Your task to perform on an android device: Open Google Chrome and click the shortcut for Amazon.com Image 0: 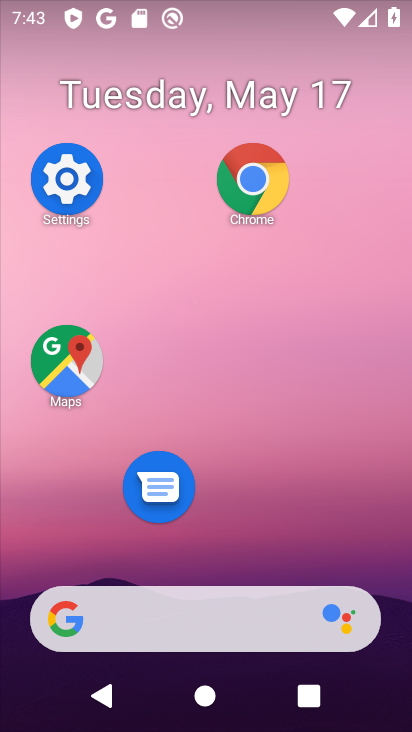
Step 0: drag from (254, 552) to (330, 155)
Your task to perform on an android device: Open Google Chrome and click the shortcut for Amazon.com Image 1: 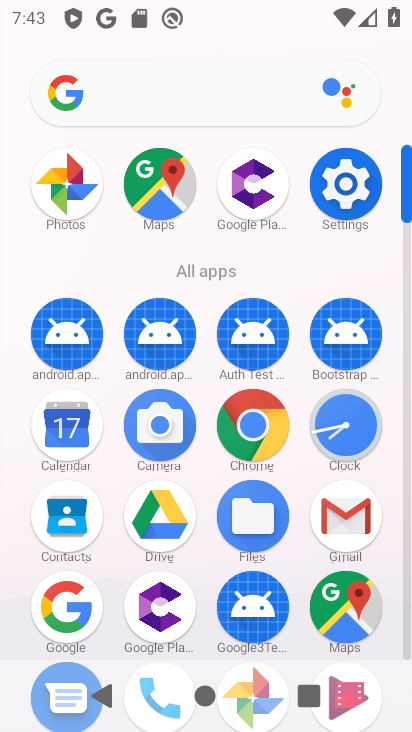
Step 1: click (260, 418)
Your task to perform on an android device: Open Google Chrome and click the shortcut for Amazon.com Image 2: 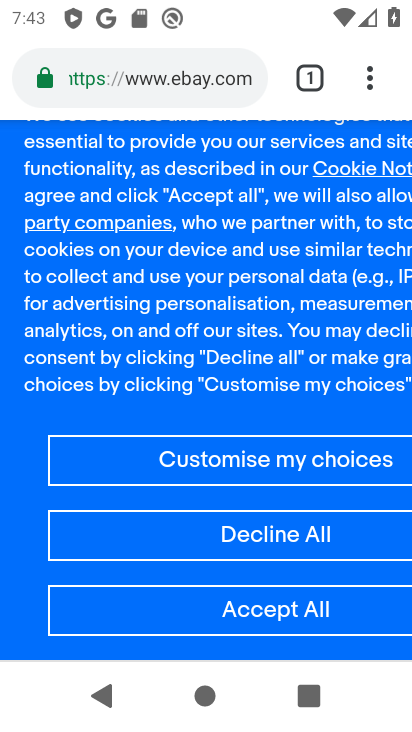
Step 2: click (308, 76)
Your task to perform on an android device: Open Google Chrome and click the shortcut for Amazon.com Image 3: 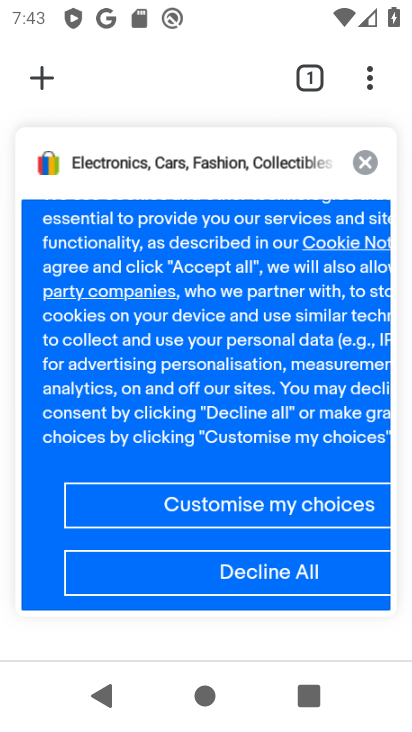
Step 3: click (47, 82)
Your task to perform on an android device: Open Google Chrome and click the shortcut for Amazon.com Image 4: 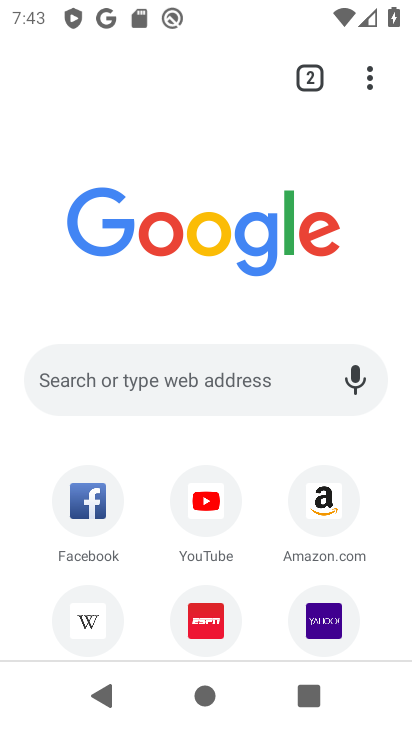
Step 4: click (313, 498)
Your task to perform on an android device: Open Google Chrome and click the shortcut for Amazon.com Image 5: 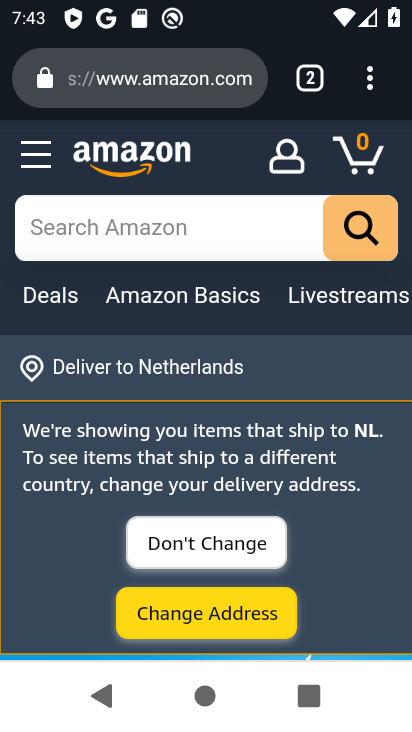
Step 5: click (378, 65)
Your task to perform on an android device: Open Google Chrome and click the shortcut for Amazon.com Image 6: 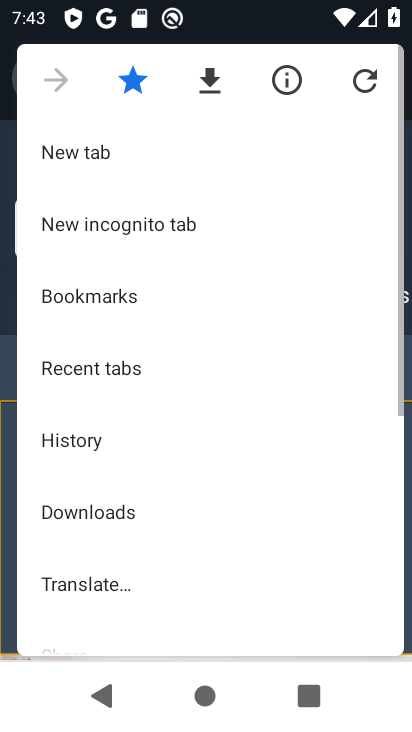
Step 6: drag from (245, 531) to (294, 131)
Your task to perform on an android device: Open Google Chrome and click the shortcut for Amazon.com Image 7: 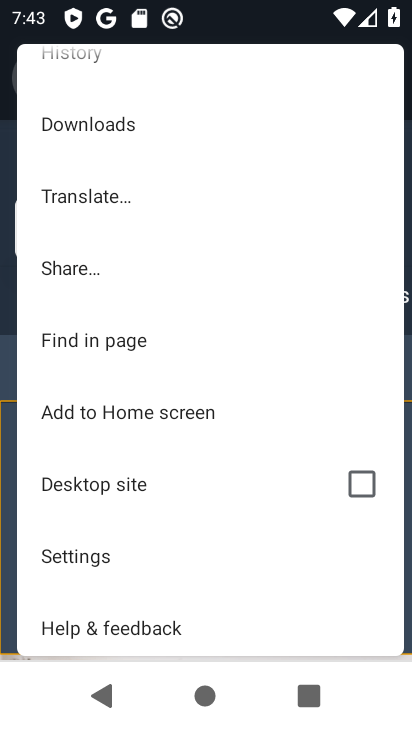
Step 7: click (215, 416)
Your task to perform on an android device: Open Google Chrome and click the shortcut for Amazon.com Image 8: 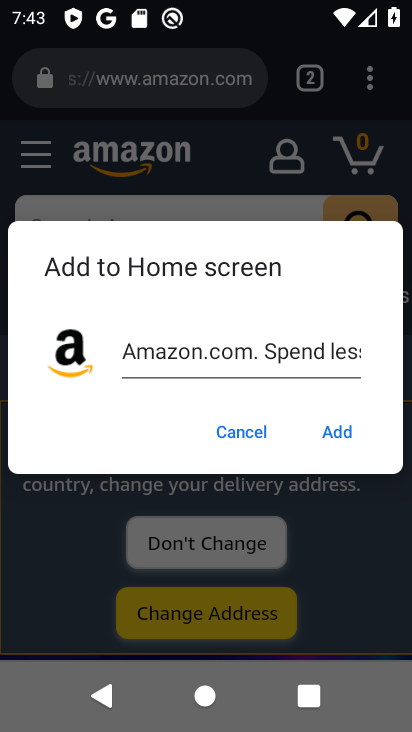
Step 8: click (342, 426)
Your task to perform on an android device: Open Google Chrome and click the shortcut for Amazon.com Image 9: 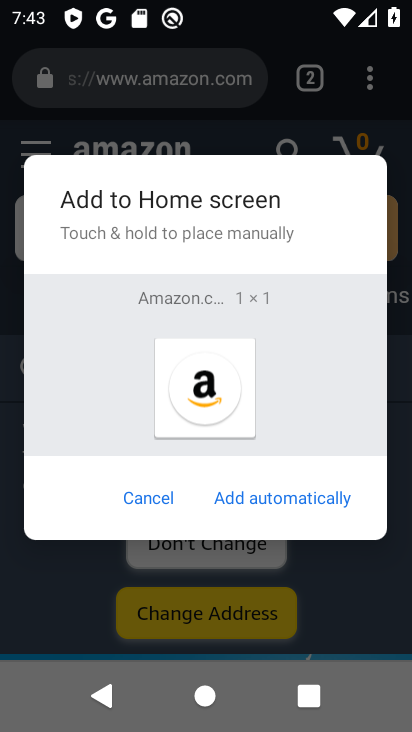
Step 9: click (340, 509)
Your task to perform on an android device: Open Google Chrome and click the shortcut for Amazon.com Image 10: 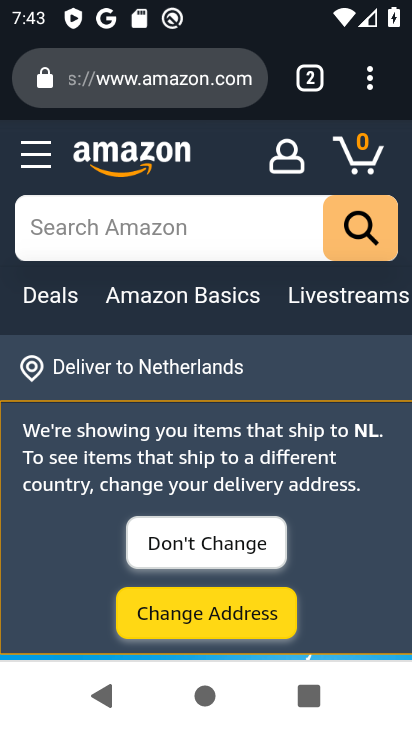
Step 10: task complete